Your task to perform on an android device: search for starred emails in the gmail app Image 0: 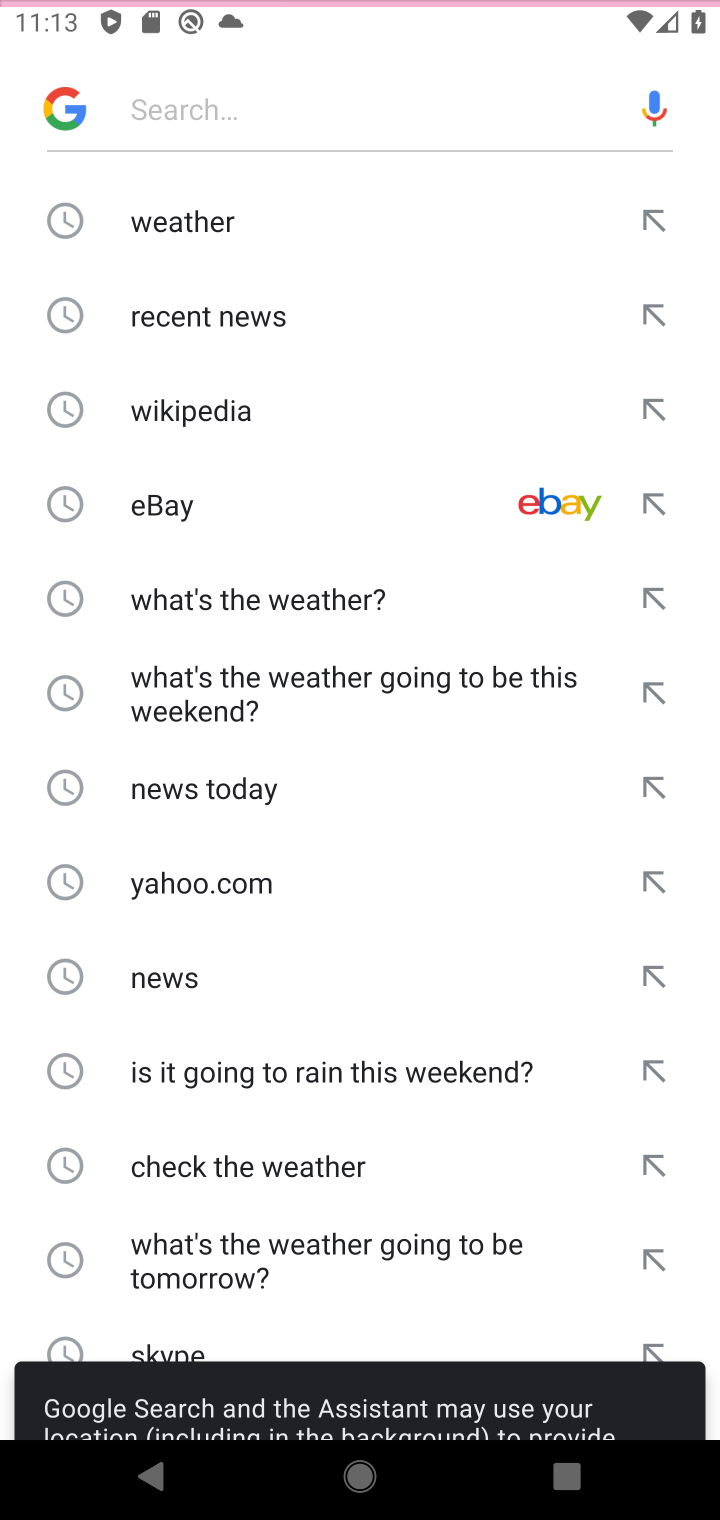
Step 0: press home button
Your task to perform on an android device: search for starred emails in the gmail app Image 1: 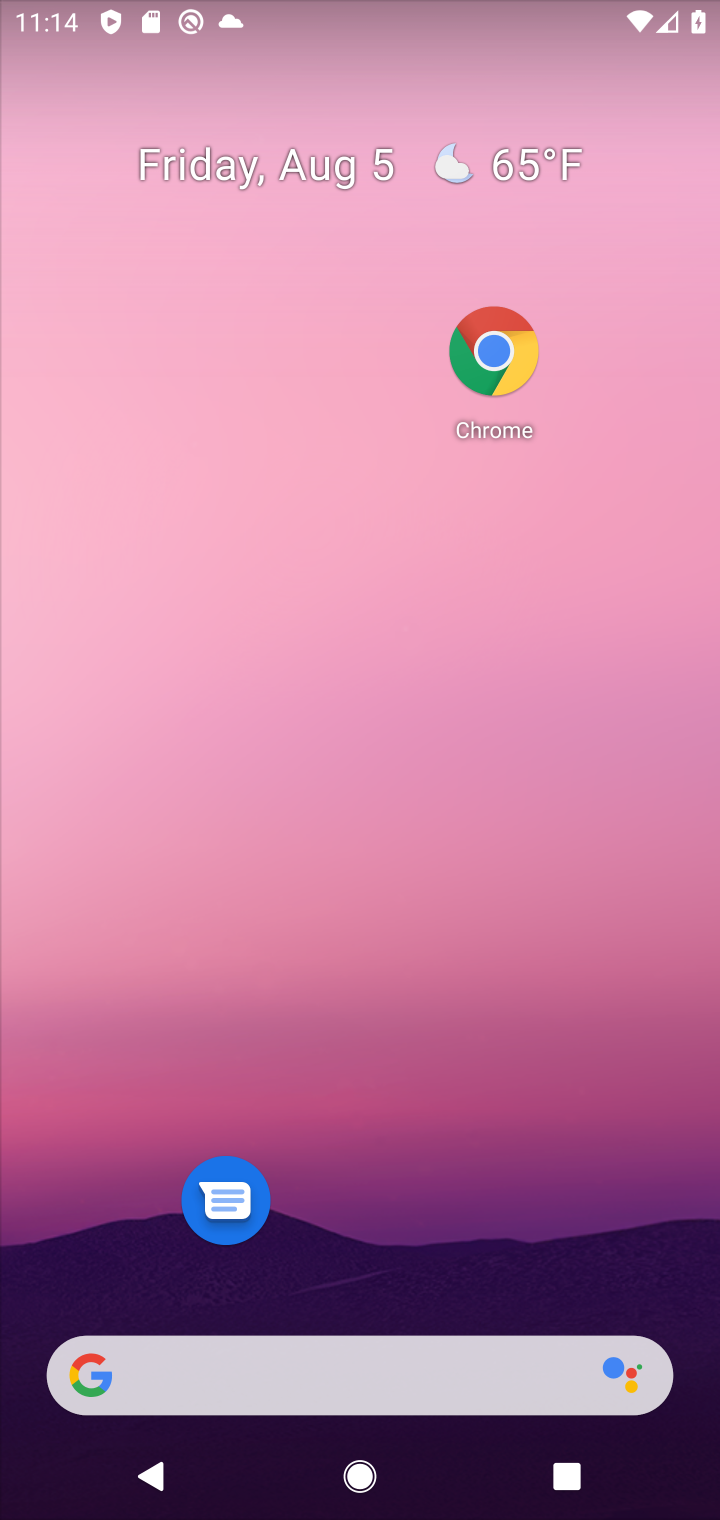
Step 1: drag from (515, 1331) to (517, 394)
Your task to perform on an android device: search for starred emails in the gmail app Image 2: 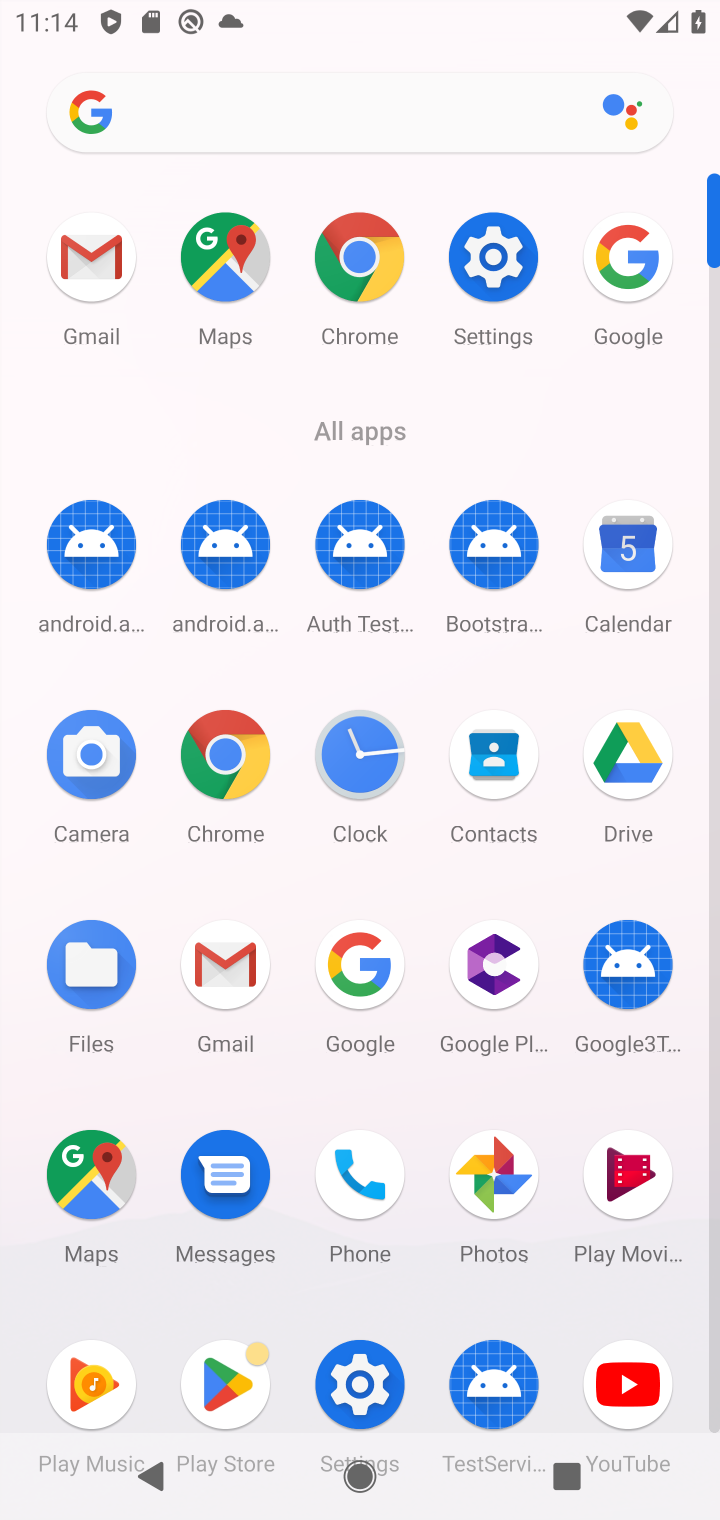
Step 2: click (239, 982)
Your task to perform on an android device: search for starred emails in the gmail app Image 3: 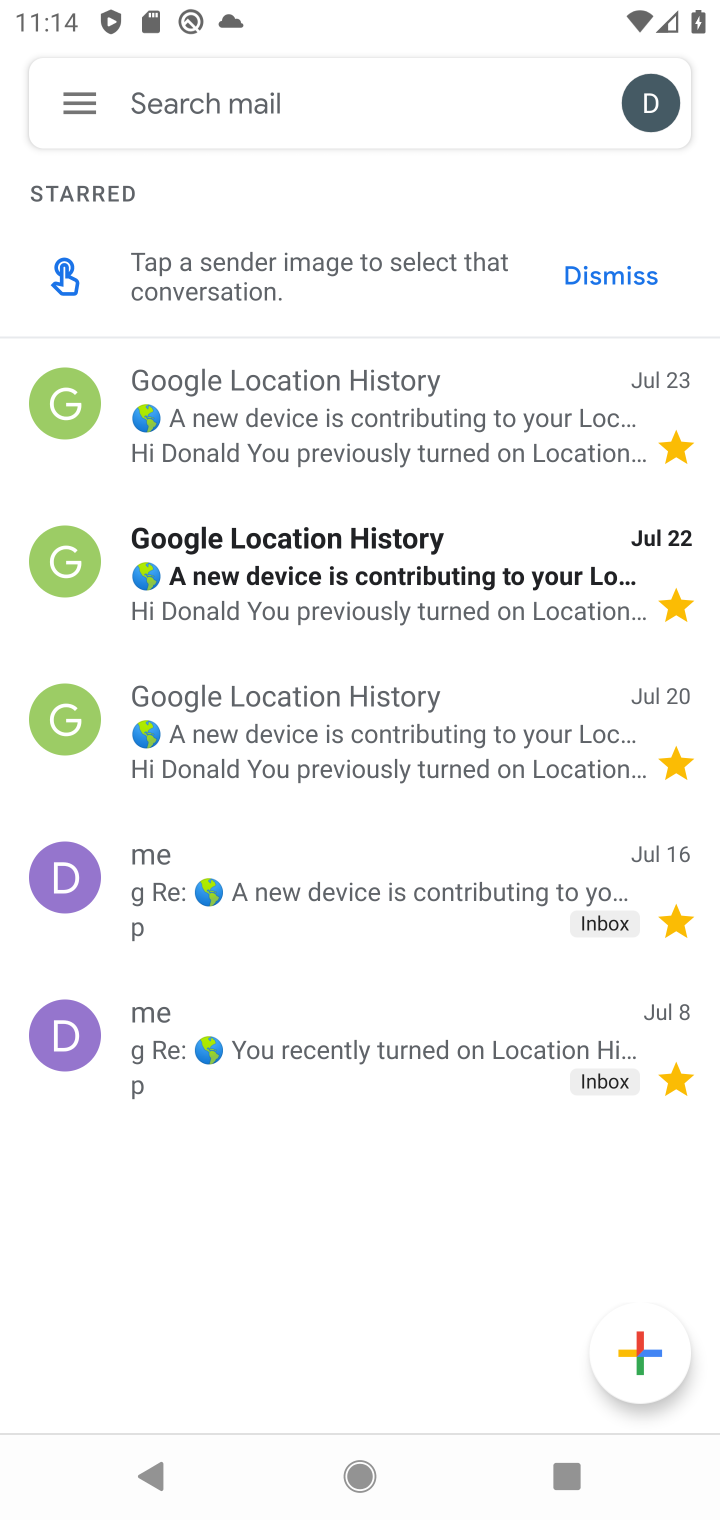
Step 3: click (90, 101)
Your task to perform on an android device: search for starred emails in the gmail app Image 4: 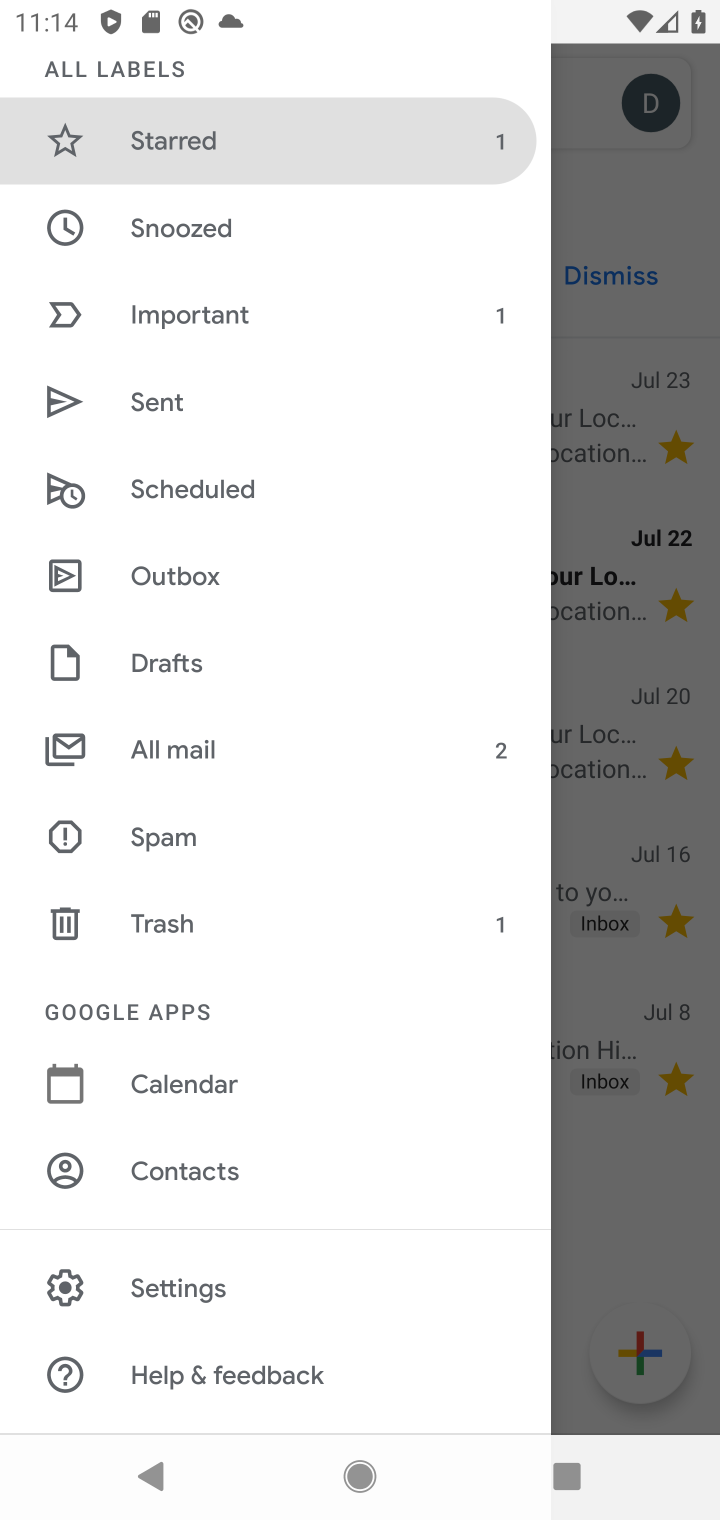
Step 4: task complete